Your task to perform on an android device: Go to location settings Image 0: 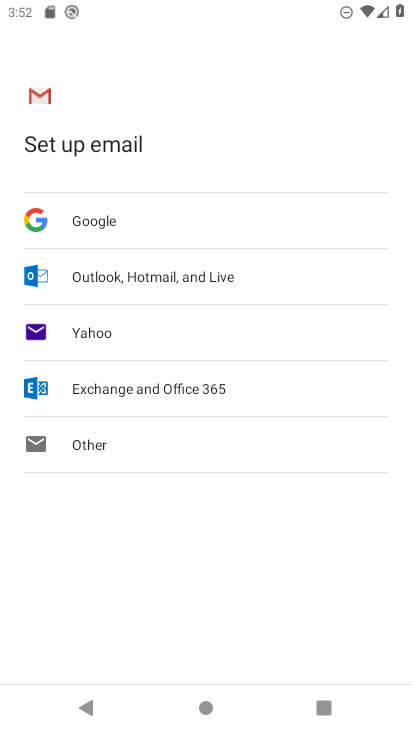
Step 0: press home button
Your task to perform on an android device: Go to location settings Image 1: 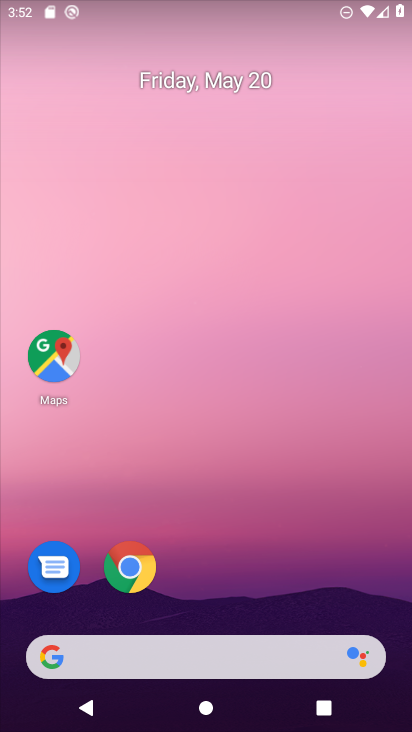
Step 1: drag from (227, 728) to (224, 83)
Your task to perform on an android device: Go to location settings Image 2: 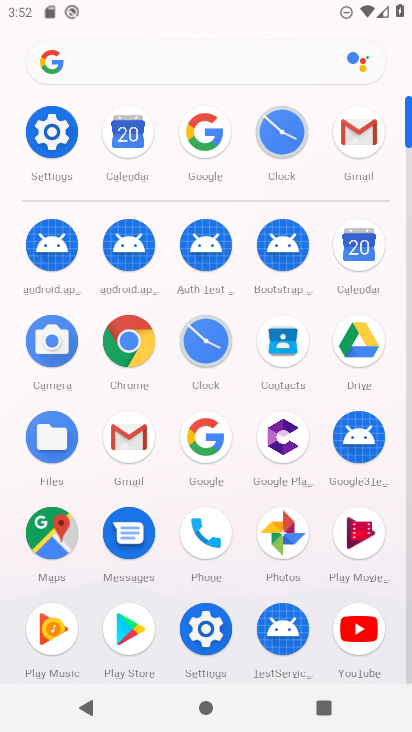
Step 2: click (49, 128)
Your task to perform on an android device: Go to location settings Image 3: 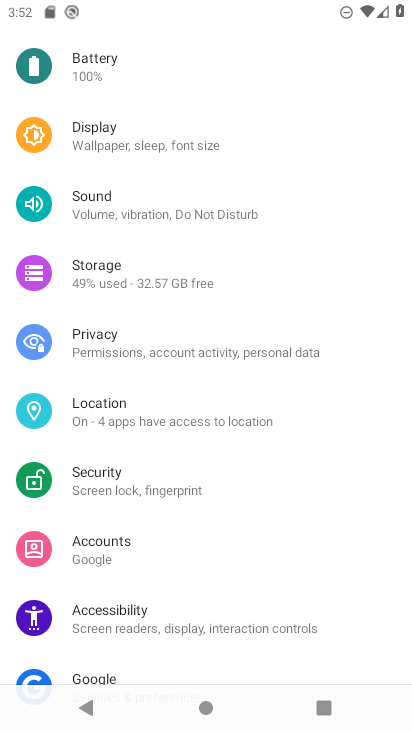
Step 3: click (114, 413)
Your task to perform on an android device: Go to location settings Image 4: 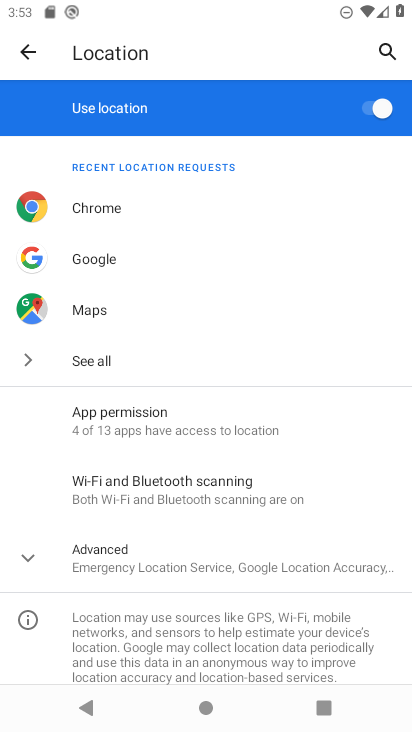
Step 4: task complete